Your task to perform on an android device: turn on priority inbox in the gmail app Image 0: 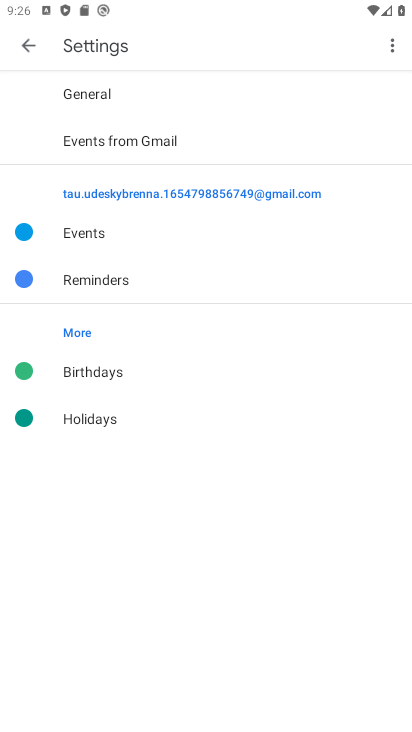
Step 0: press home button
Your task to perform on an android device: turn on priority inbox in the gmail app Image 1: 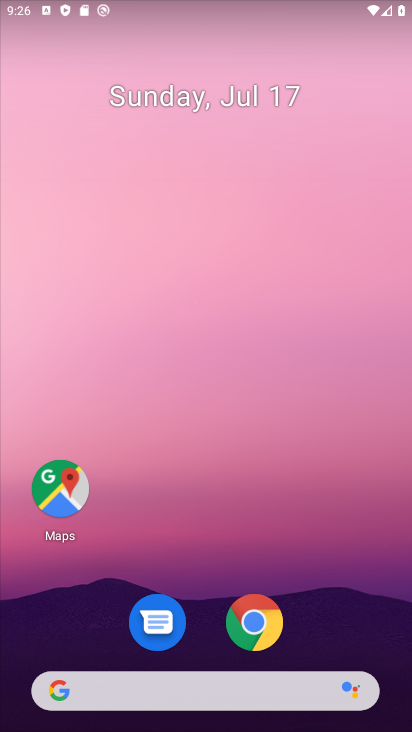
Step 1: drag from (246, 610) to (249, 113)
Your task to perform on an android device: turn on priority inbox in the gmail app Image 2: 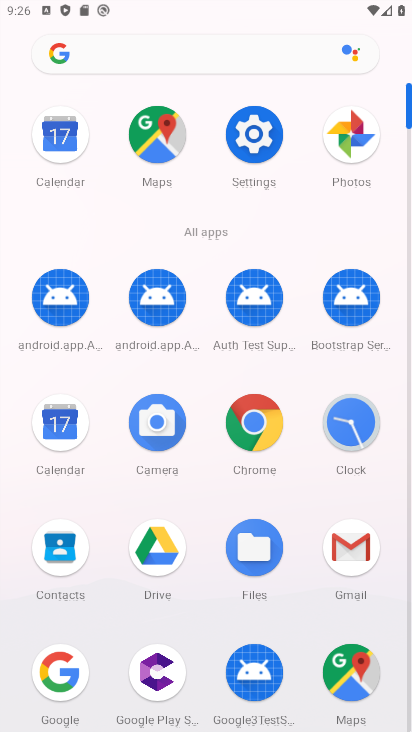
Step 2: click (355, 546)
Your task to perform on an android device: turn on priority inbox in the gmail app Image 3: 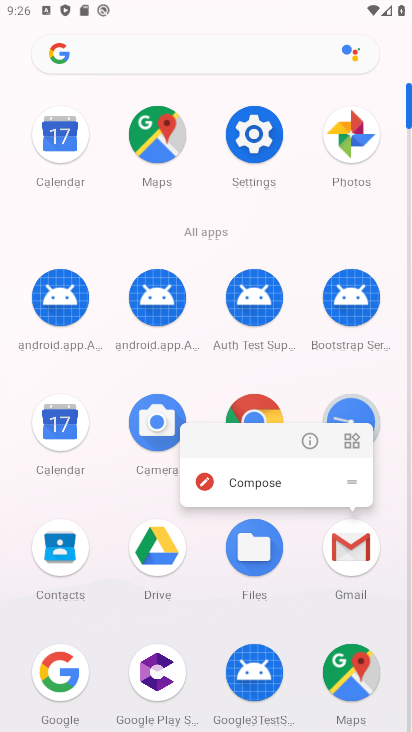
Step 3: click (350, 546)
Your task to perform on an android device: turn on priority inbox in the gmail app Image 4: 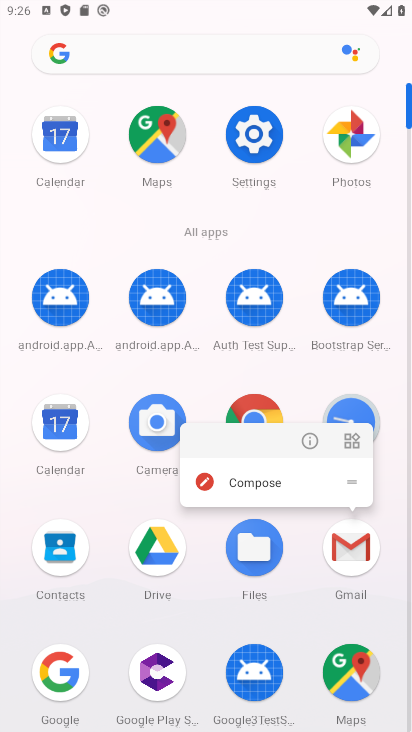
Step 4: click (350, 546)
Your task to perform on an android device: turn on priority inbox in the gmail app Image 5: 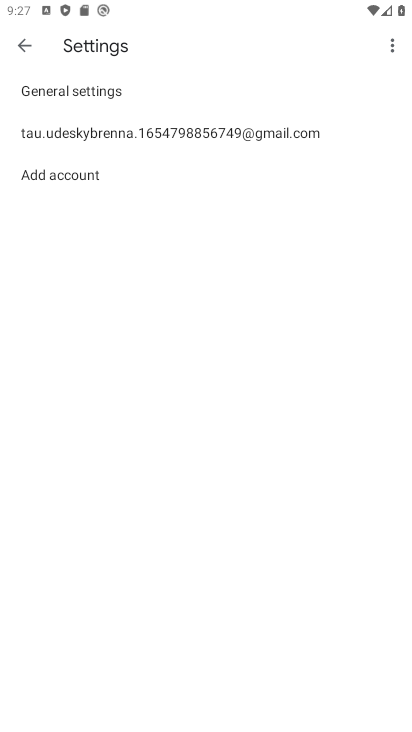
Step 5: click (161, 129)
Your task to perform on an android device: turn on priority inbox in the gmail app Image 6: 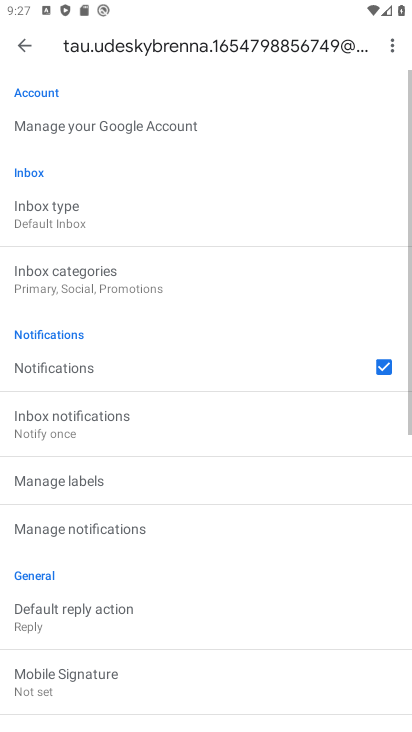
Step 6: click (67, 215)
Your task to perform on an android device: turn on priority inbox in the gmail app Image 7: 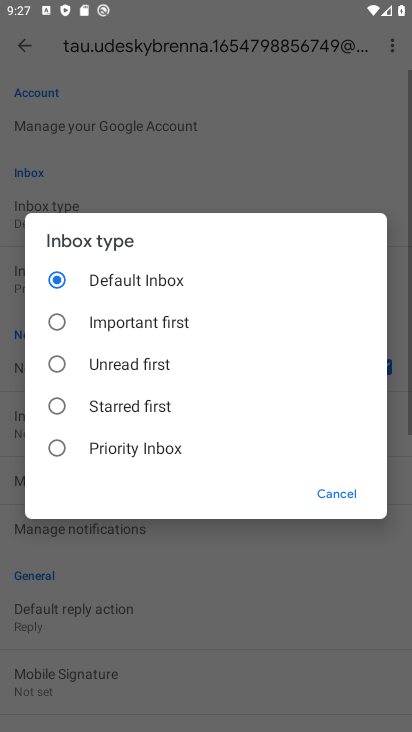
Step 7: click (134, 447)
Your task to perform on an android device: turn on priority inbox in the gmail app Image 8: 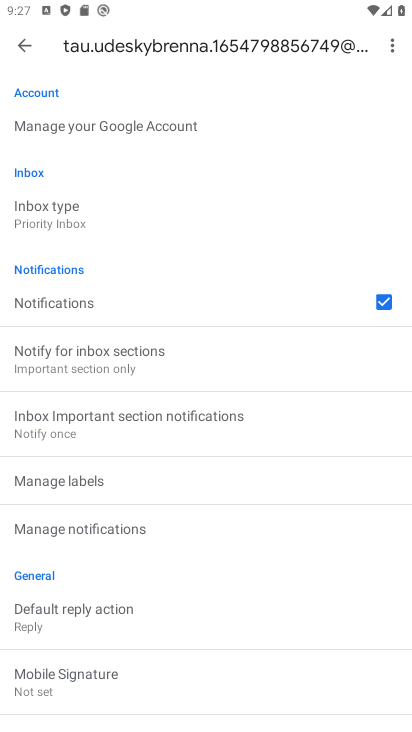
Step 8: task complete